Your task to perform on an android device: turn off notifications settings in the gmail app Image 0: 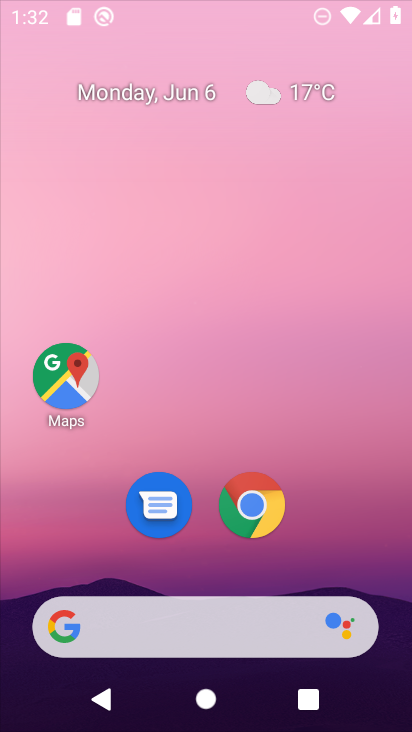
Step 0: click (216, 162)
Your task to perform on an android device: turn off notifications settings in the gmail app Image 1: 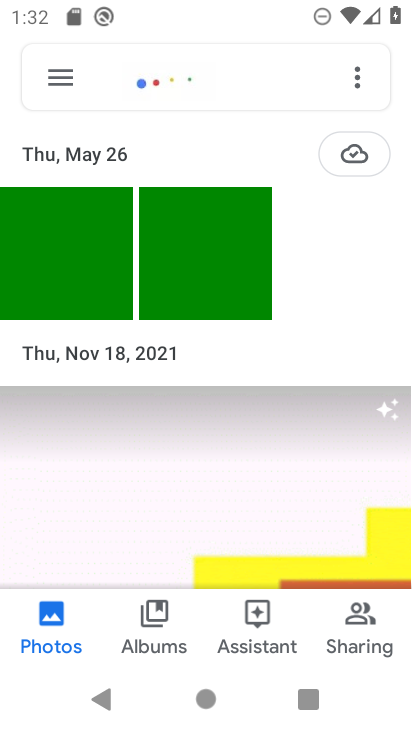
Step 1: press home button
Your task to perform on an android device: turn off notifications settings in the gmail app Image 2: 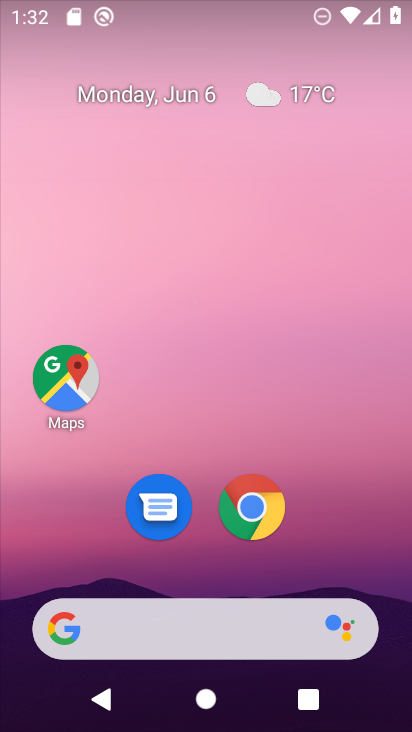
Step 2: drag from (252, 677) to (324, 29)
Your task to perform on an android device: turn off notifications settings in the gmail app Image 3: 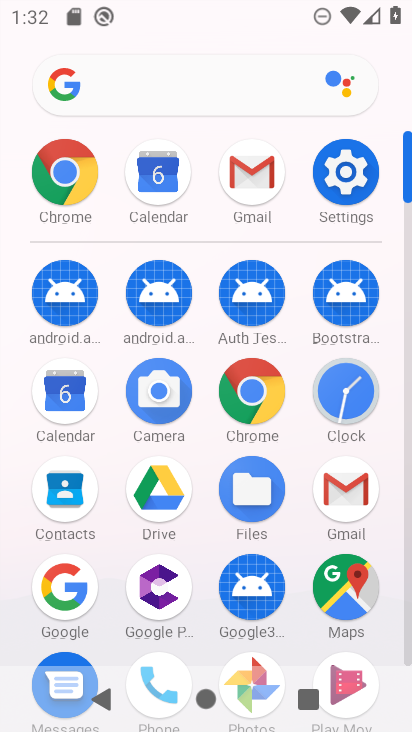
Step 3: click (335, 500)
Your task to perform on an android device: turn off notifications settings in the gmail app Image 4: 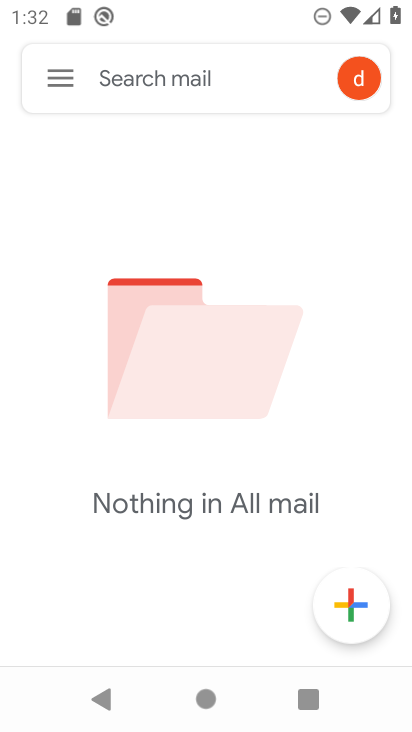
Step 4: click (49, 84)
Your task to perform on an android device: turn off notifications settings in the gmail app Image 5: 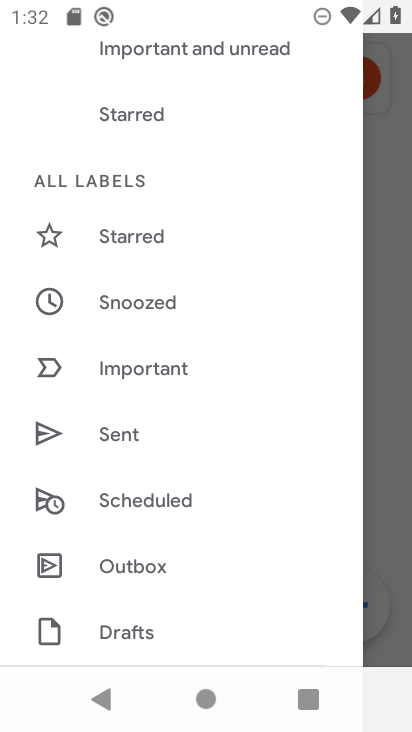
Step 5: drag from (103, 606) to (90, 393)
Your task to perform on an android device: turn off notifications settings in the gmail app Image 6: 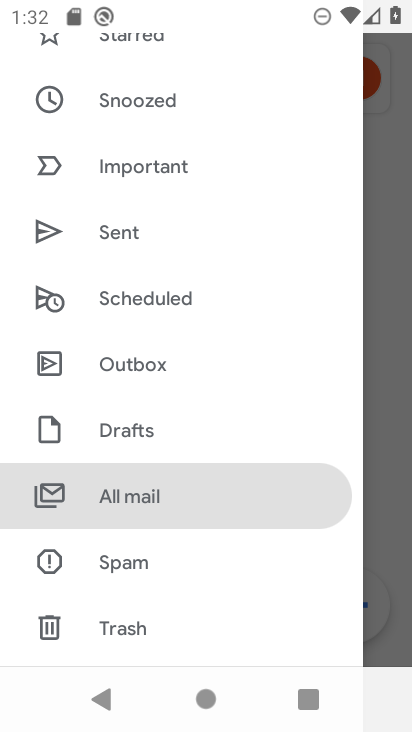
Step 6: drag from (144, 594) to (203, 286)
Your task to perform on an android device: turn off notifications settings in the gmail app Image 7: 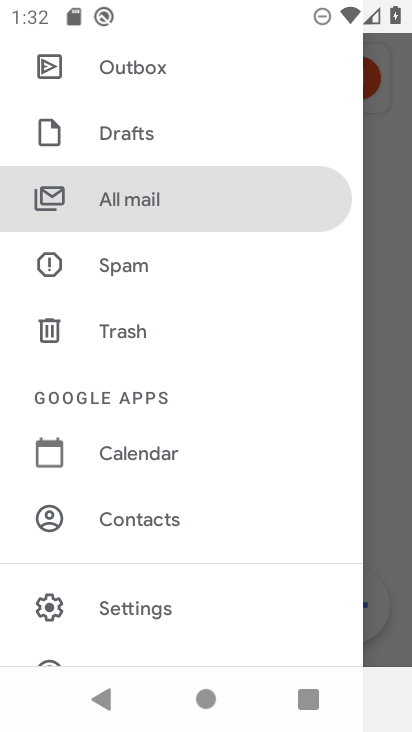
Step 7: click (159, 600)
Your task to perform on an android device: turn off notifications settings in the gmail app Image 8: 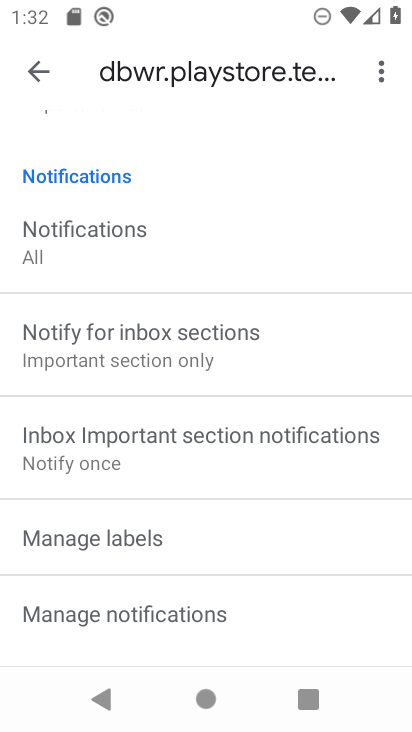
Step 8: click (115, 267)
Your task to perform on an android device: turn off notifications settings in the gmail app Image 9: 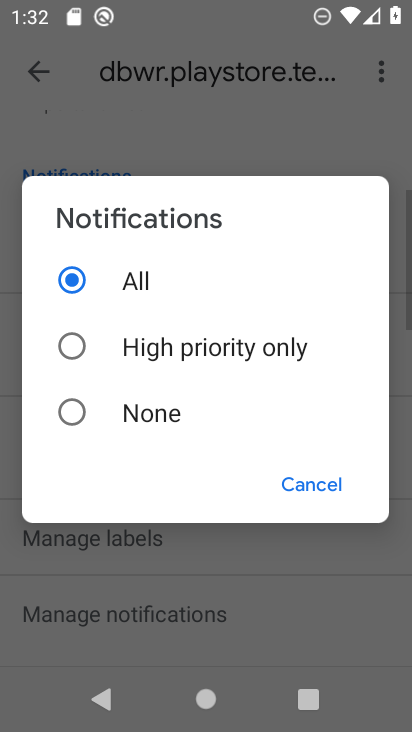
Step 9: click (101, 411)
Your task to perform on an android device: turn off notifications settings in the gmail app Image 10: 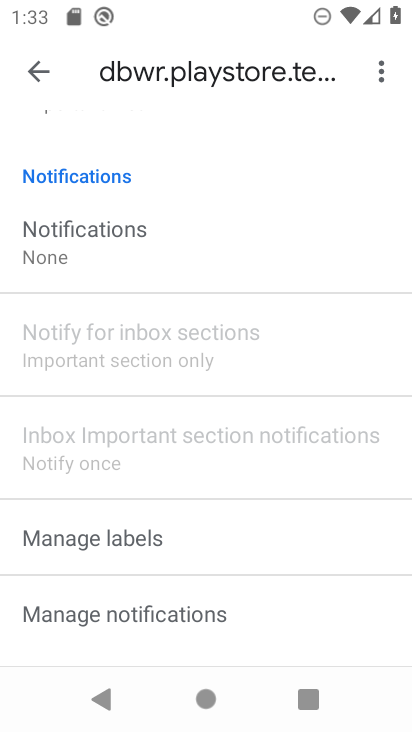
Step 10: task complete